Your task to perform on an android device: Open sound settings Image 0: 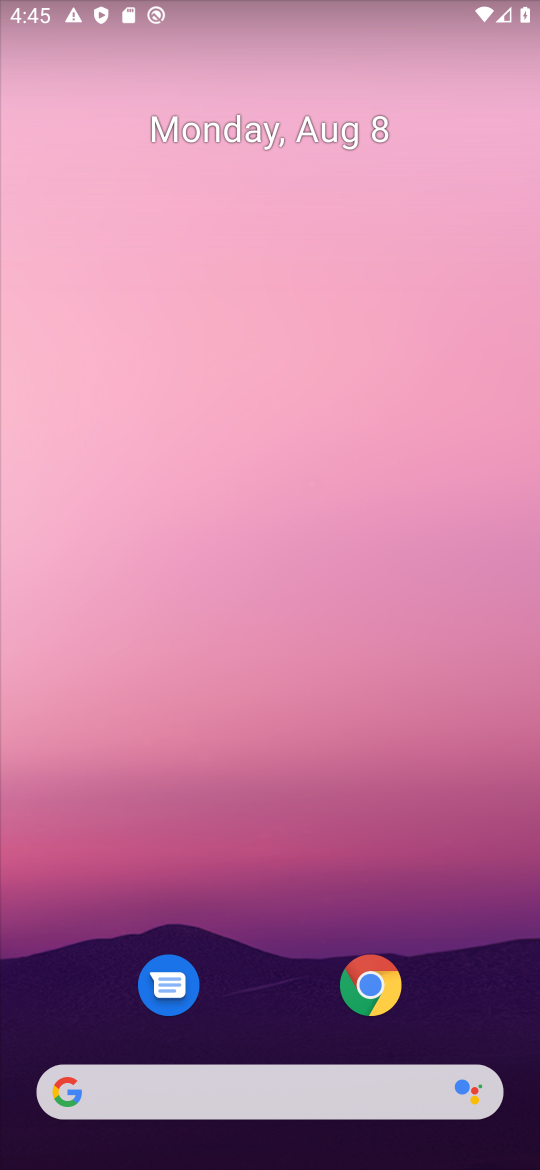
Step 0: drag from (294, 866) to (361, 80)
Your task to perform on an android device: Open sound settings Image 1: 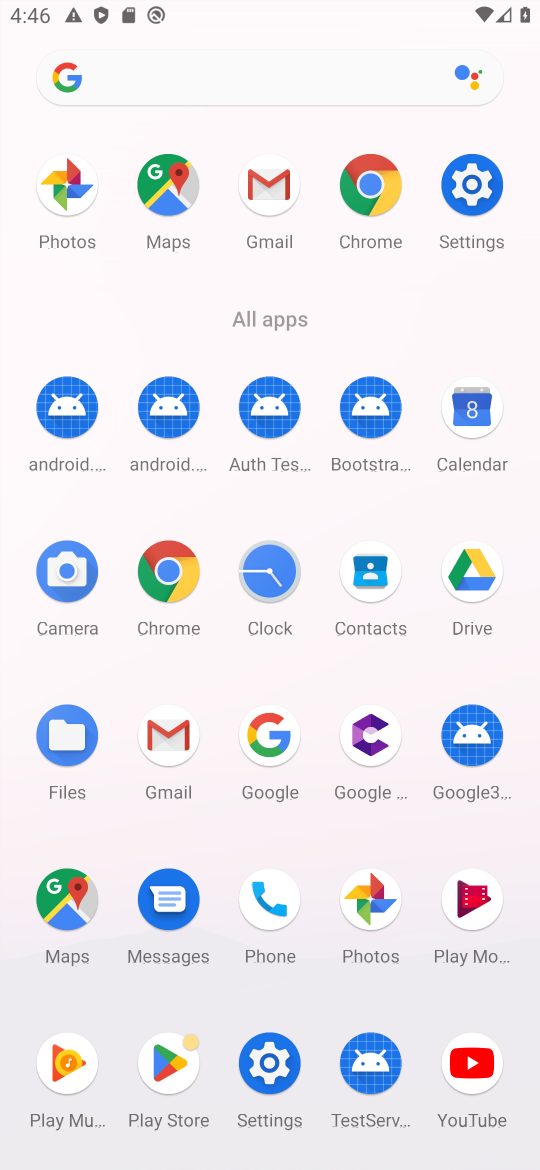
Step 1: click (487, 171)
Your task to perform on an android device: Open sound settings Image 2: 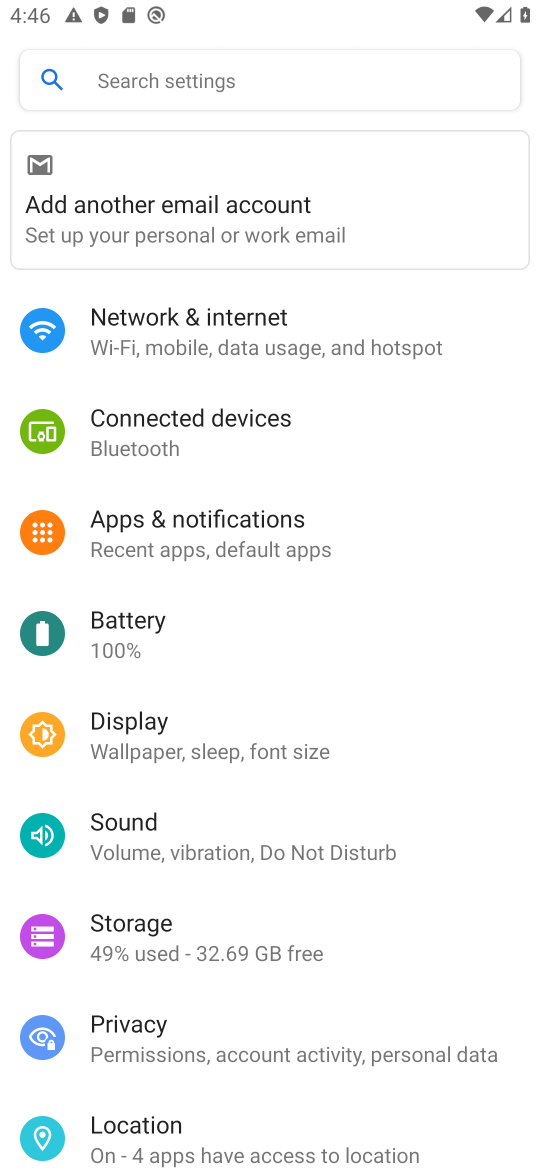
Step 2: task complete